Your task to perform on an android device: Go to internet settings Image 0: 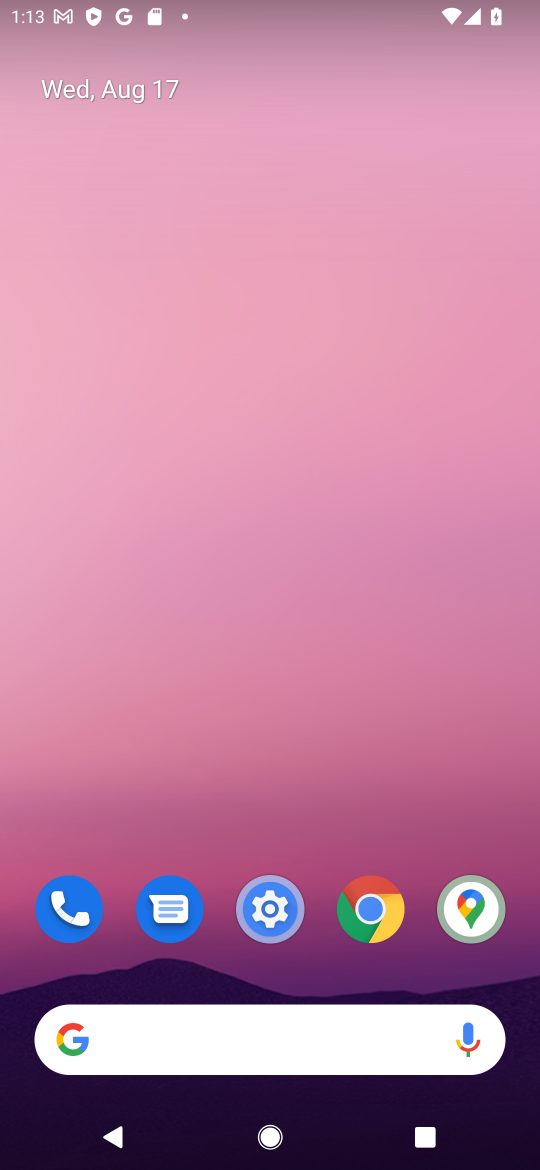
Step 0: click (286, 903)
Your task to perform on an android device: Go to internet settings Image 1: 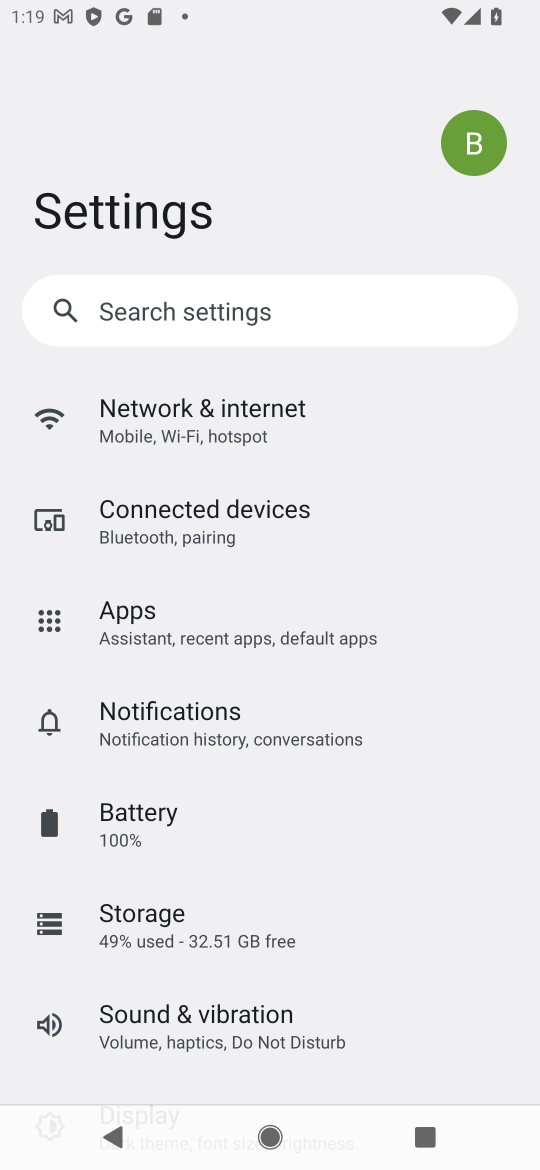
Step 1: click (281, 417)
Your task to perform on an android device: Go to internet settings Image 2: 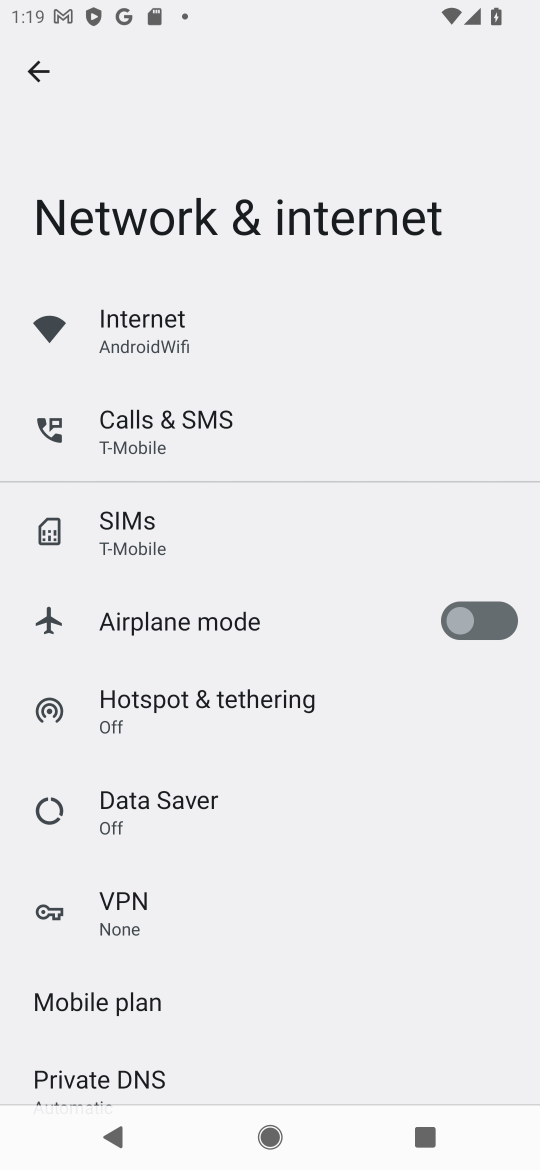
Step 2: task complete